Your task to perform on an android device: Add usb-c to the cart on bestbuy Image 0: 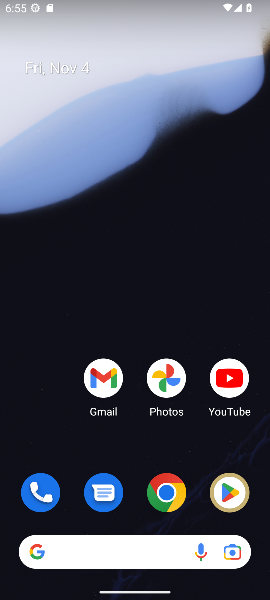
Step 0: drag from (140, 451) to (176, 72)
Your task to perform on an android device: Add usb-c to the cart on bestbuy Image 1: 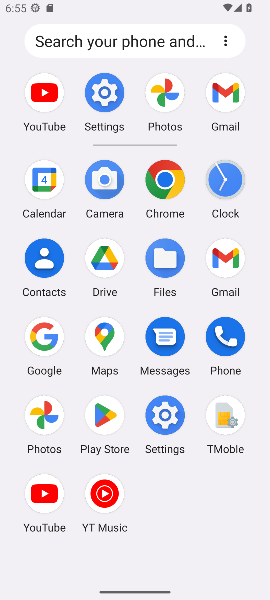
Step 1: click (164, 178)
Your task to perform on an android device: Add usb-c to the cart on bestbuy Image 2: 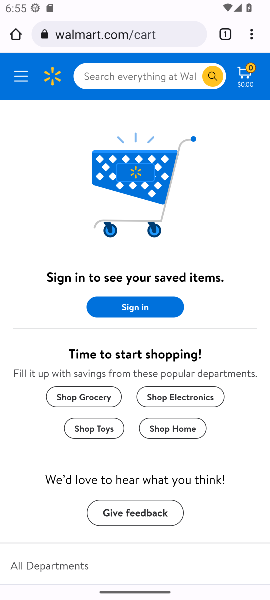
Step 2: click (142, 34)
Your task to perform on an android device: Add usb-c to the cart on bestbuy Image 3: 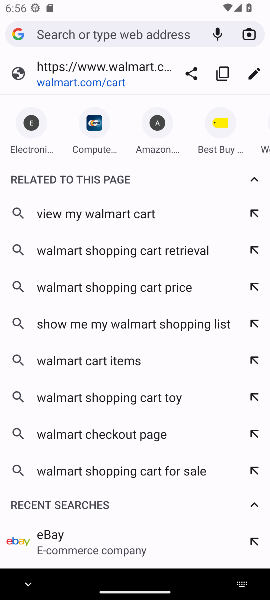
Step 3: type "bestbuy.com"
Your task to perform on an android device: Add usb-c to the cart on bestbuy Image 4: 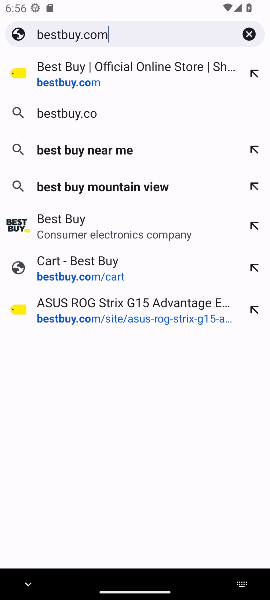
Step 4: press enter
Your task to perform on an android device: Add usb-c to the cart on bestbuy Image 5: 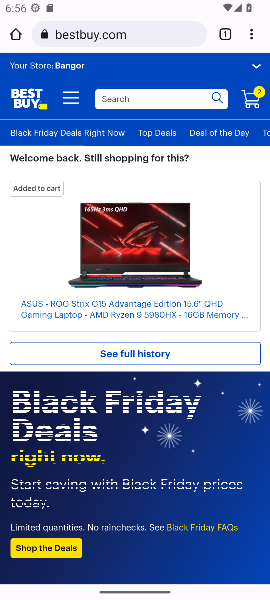
Step 5: click (156, 95)
Your task to perform on an android device: Add usb-c to the cart on bestbuy Image 6: 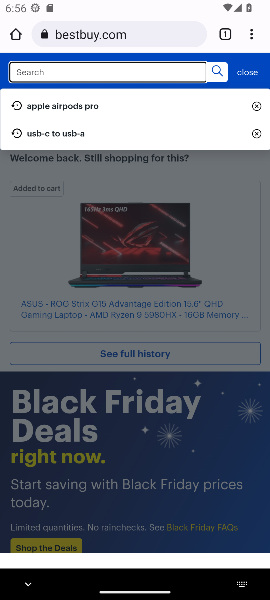
Step 6: type "usb - c"
Your task to perform on an android device: Add usb-c to the cart on bestbuy Image 7: 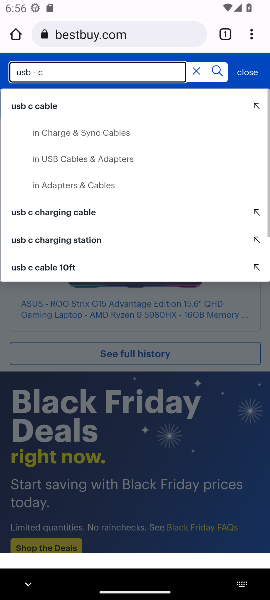
Step 7: press enter
Your task to perform on an android device: Add usb-c to the cart on bestbuy Image 8: 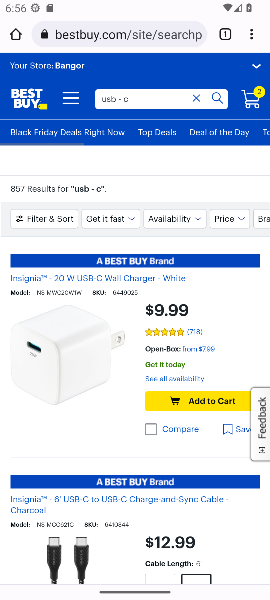
Step 8: click (211, 397)
Your task to perform on an android device: Add usb-c to the cart on bestbuy Image 9: 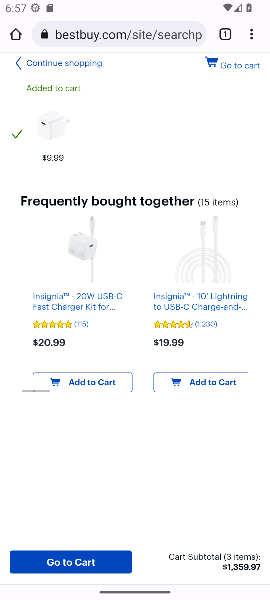
Step 9: task complete